Your task to perform on an android device: Open Yahoo.com Image 0: 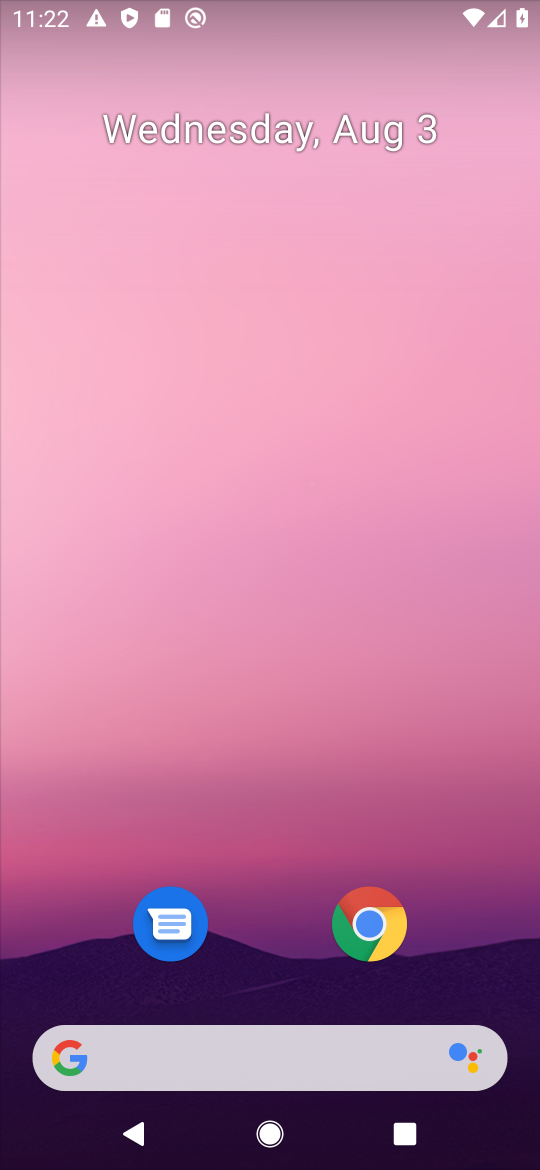
Step 0: drag from (69, 1022) to (104, 1070)
Your task to perform on an android device: Open Yahoo.com Image 1: 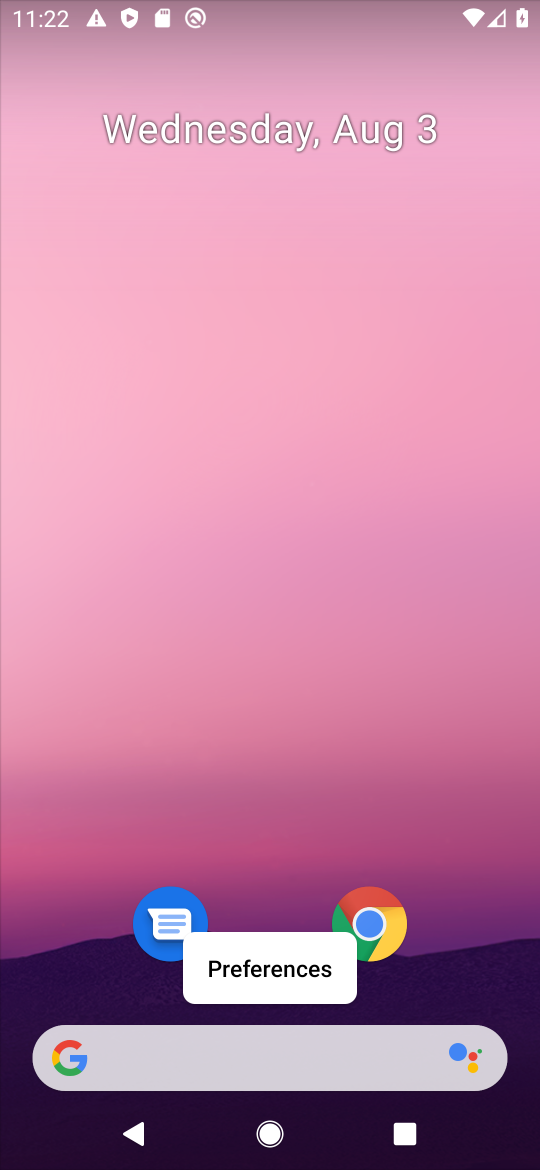
Step 1: click (126, 1050)
Your task to perform on an android device: Open Yahoo.com Image 2: 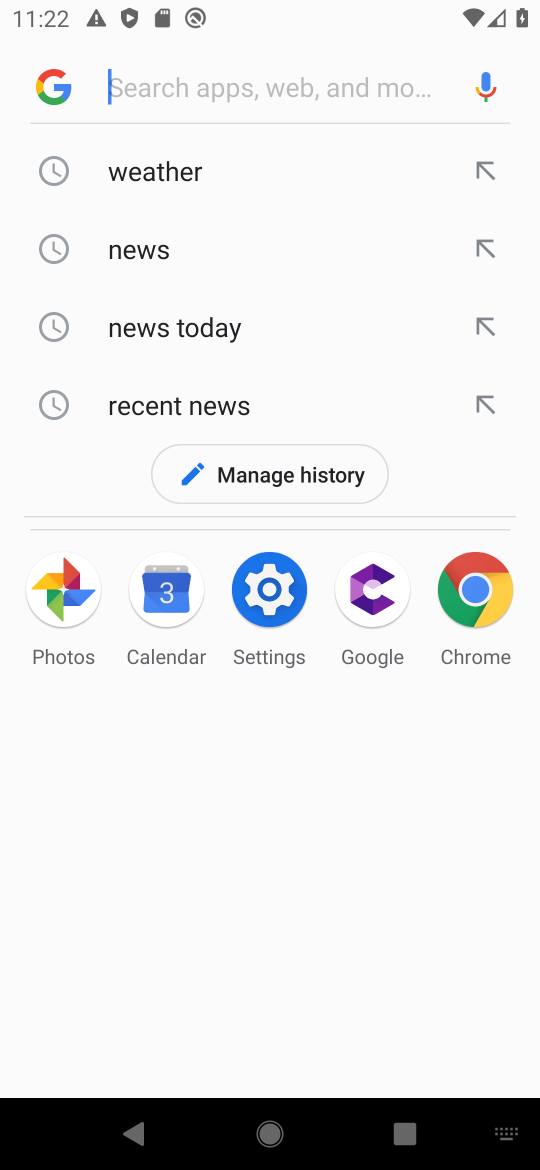
Step 2: type "Yahoo.com"
Your task to perform on an android device: Open Yahoo.com Image 3: 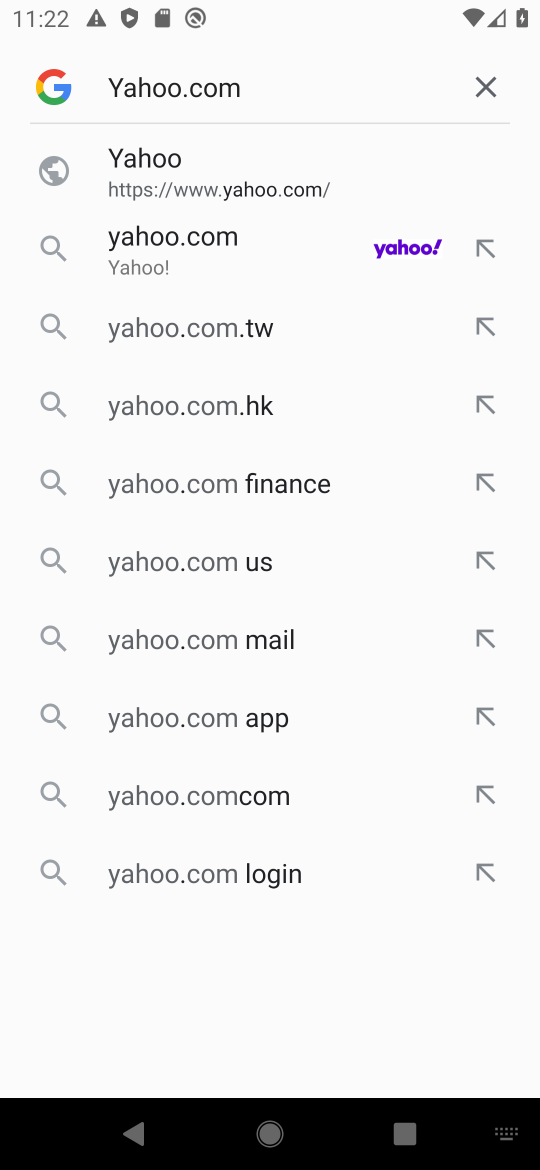
Step 3: click (174, 232)
Your task to perform on an android device: Open Yahoo.com Image 4: 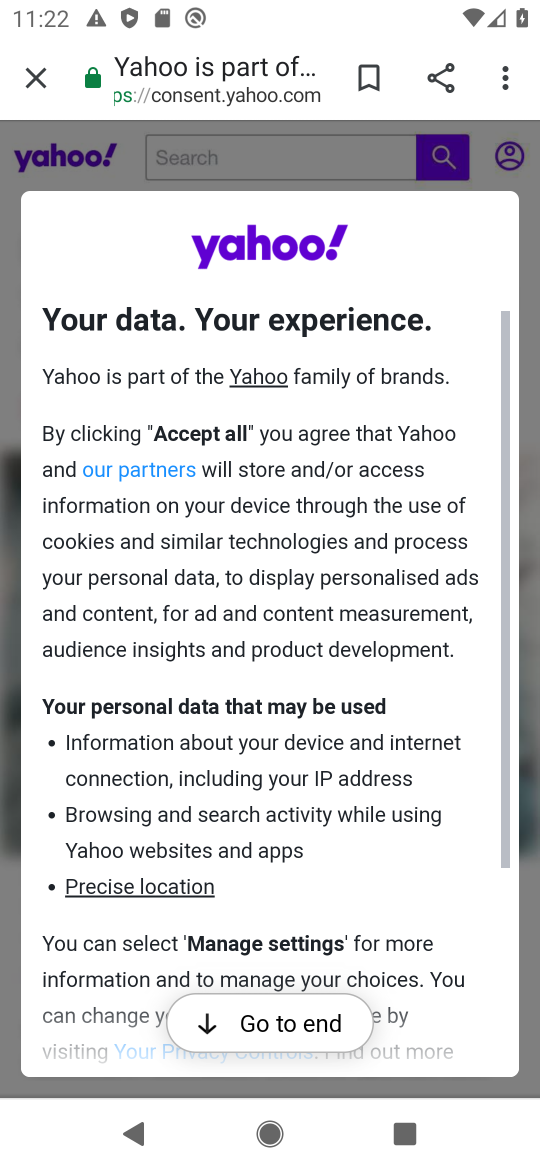
Step 4: task complete